Your task to perform on an android device: Go to display settings Image 0: 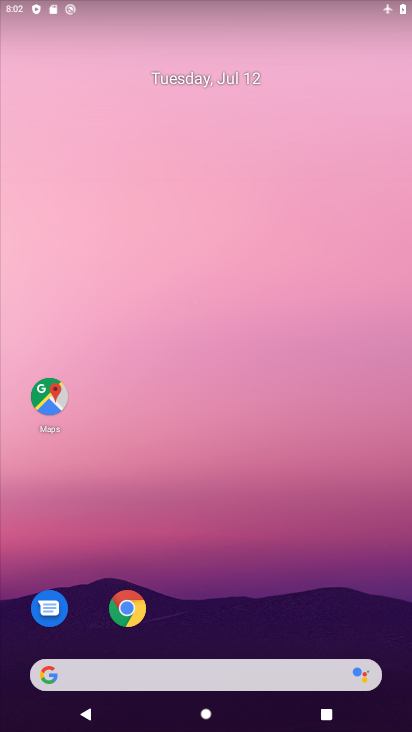
Step 0: drag from (200, 653) to (228, 121)
Your task to perform on an android device: Go to display settings Image 1: 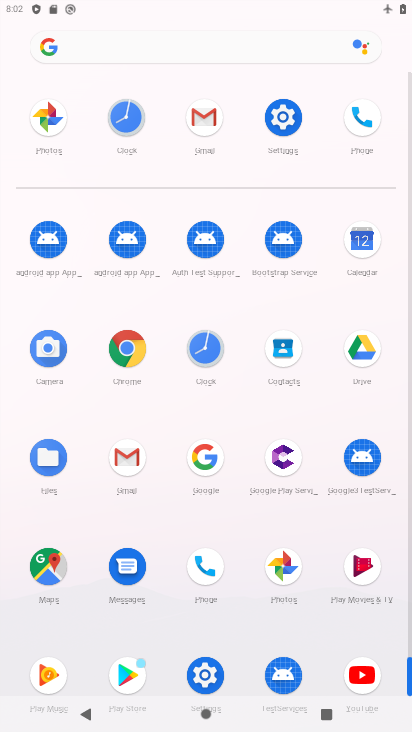
Step 1: click (296, 114)
Your task to perform on an android device: Go to display settings Image 2: 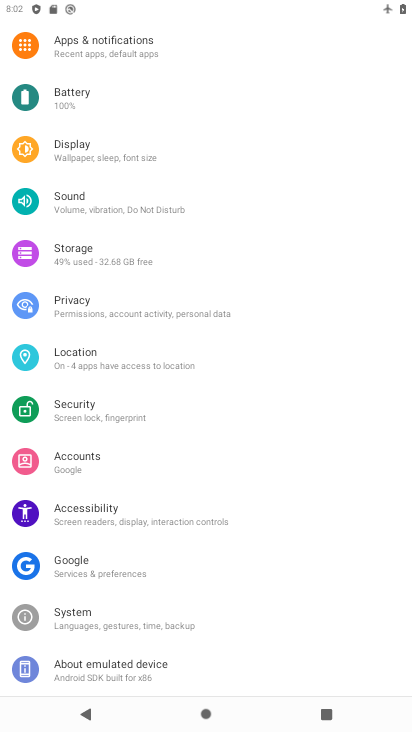
Step 2: click (92, 158)
Your task to perform on an android device: Go to display settings Image 3: 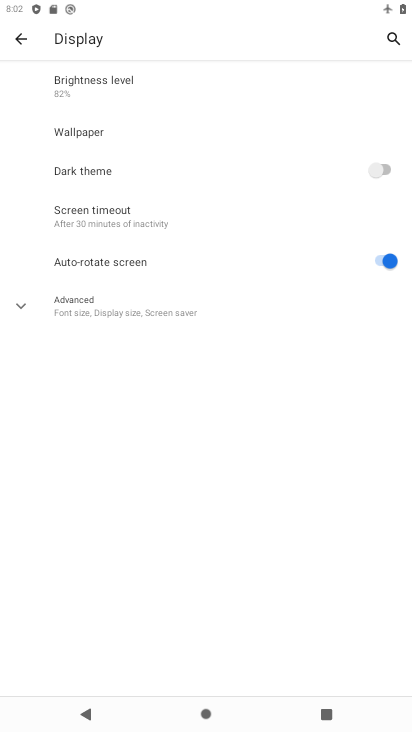
Step 3: click (112, 300)
Your task to perform on an android device: Go to display settings Image 4: 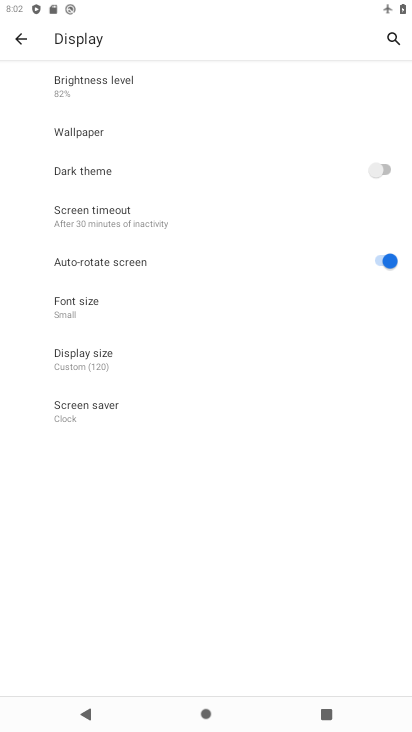
Step 4: task complete